Your task to perform on an android device: Open Google Maps and go to "Timeline" Image 0: 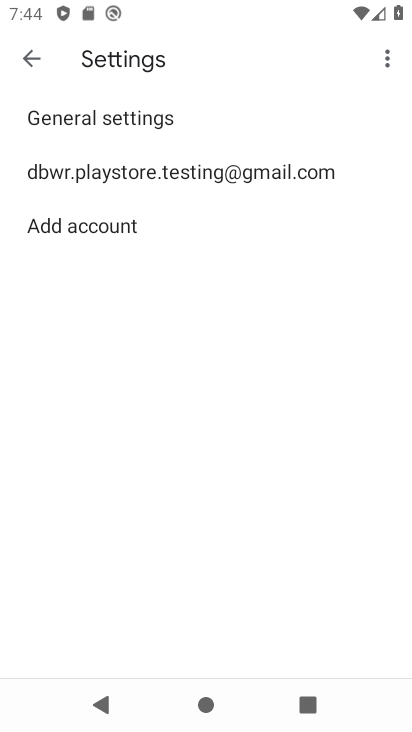
Step 0: press home button
Your task to perform on an android device: Open Google Maps and go to "Timeline" Image 1: 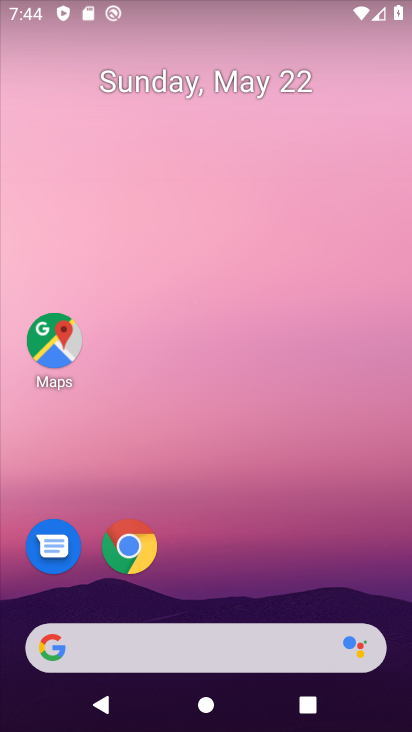
Step 1: click (51, 331)
Your task to perform on an android device: Open Google Maps and go to "Timeline" Image 2: 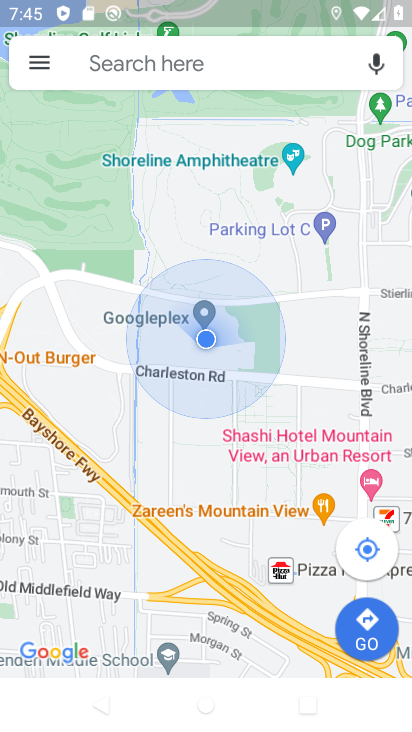
Step 2: click (48, 67)
Your task to perform on an android device: Open Google Maps and go to "Timeline" Image 3: 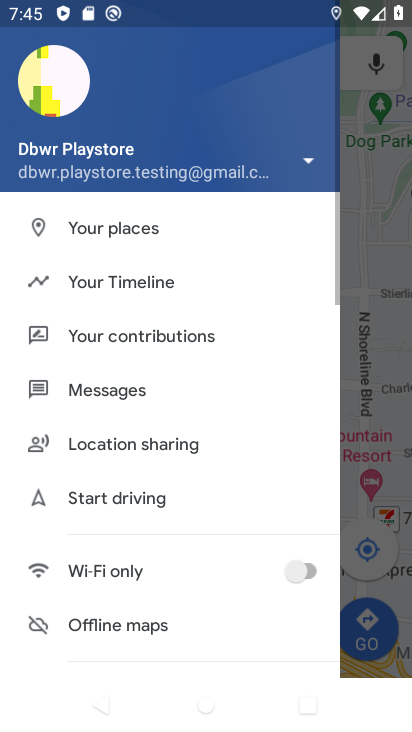
Step 3: click (80, 281)
Your task to perform on an android device: Open Google Maps and go to "Timeline" Image 4: 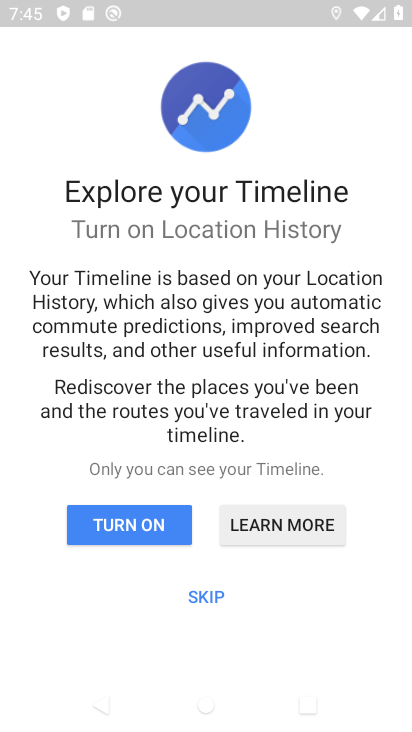
Step 4: task complete